Your task to perform on an android device: Show me popular games on the Play Store Image 0: 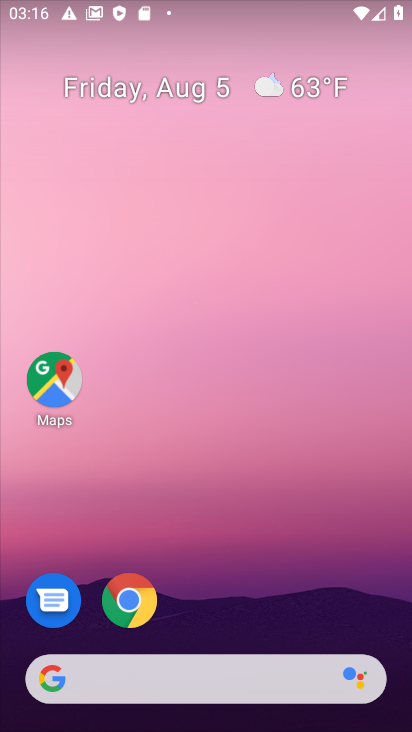
Step 0: drag from (207, 682) to (229, 84)
Your task to perform on an android device: Show me popular games on the Play Store Image 1: 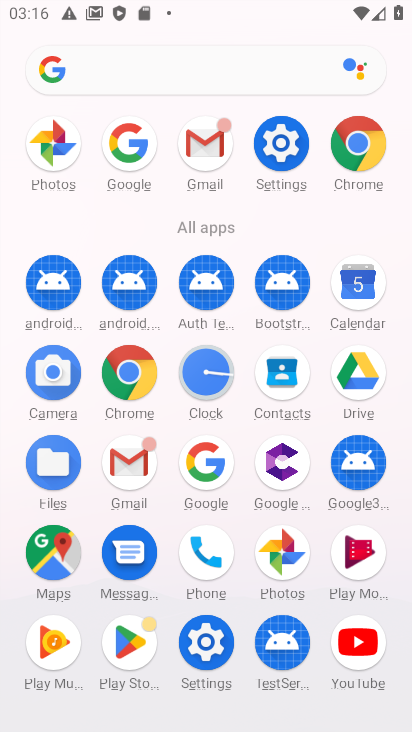
Step 1: click (135, 646)
Your task to perform on an android device: Show me popular games on the Play Store Image 2: 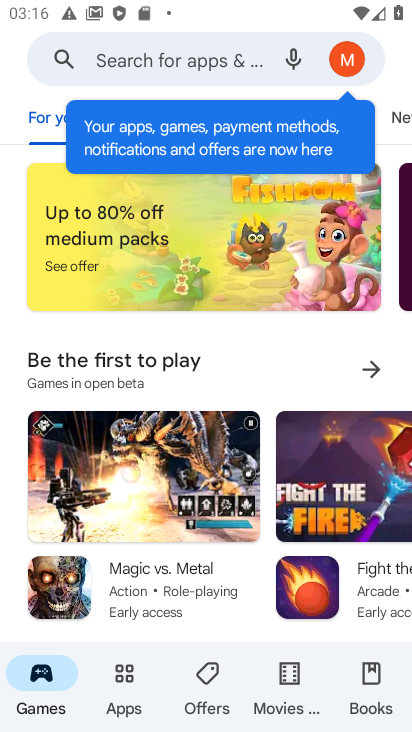
Step 2: click (225, 55)
Your task to perform on an android device: Show me popular games on the Play Store Image 3: 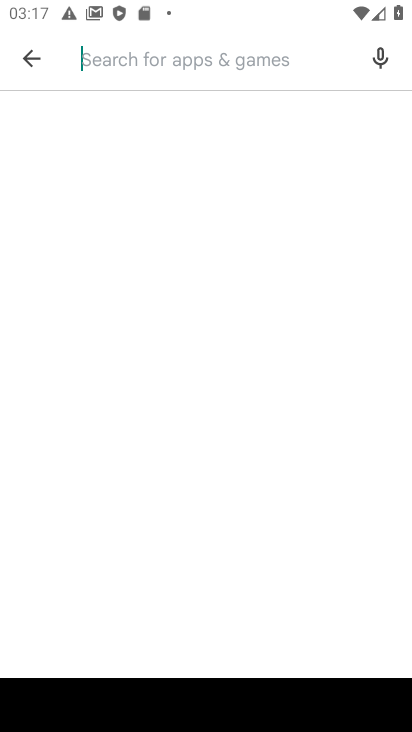
Step 3: type "popular games"
Your task to perform on an android device: Show me popular games on the Play Store Image 4: 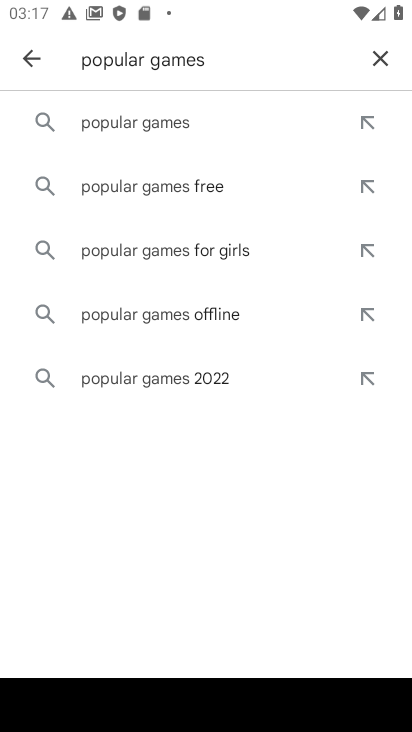
Step 4: click (147, 128)
Your task to perform on an android device: Show me popular games on the Play Store Image 5: 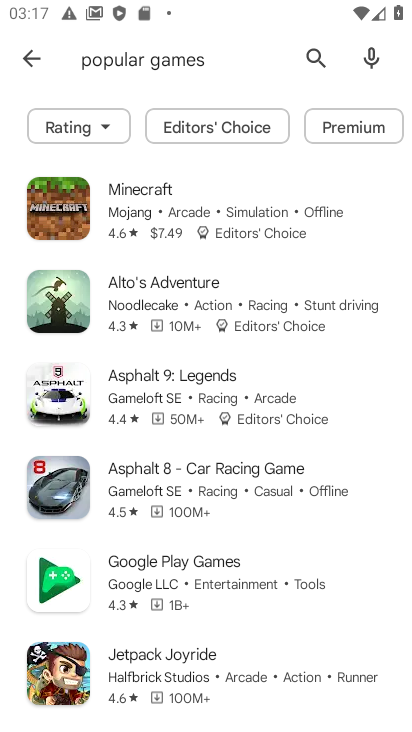
Step 5: task complete